Your task to perform on an android device: turn off notifications settings in the gmail app Image 0: 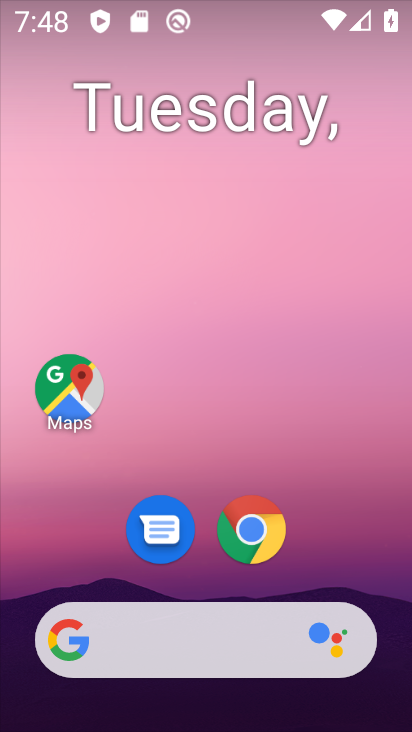
Step 0: drag from (213, 585) to (296, 10)
Your task to perform on an android device: turn off notifications settings in the gmail app Image 1: 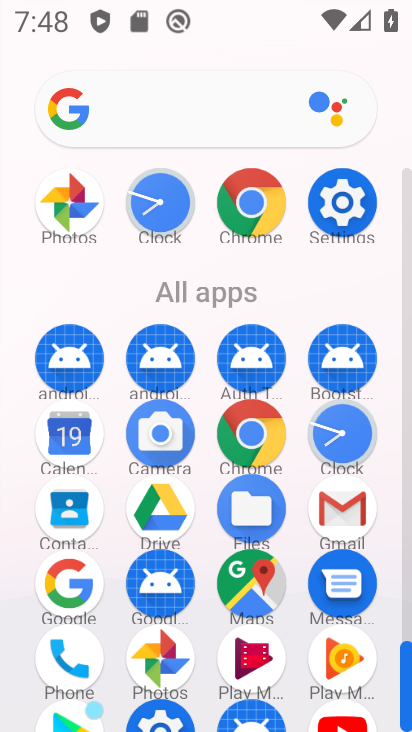
Step 1: click (344, 520)
Your task to perform on an android device: turn off notifications settings in the gmail app Image 2: 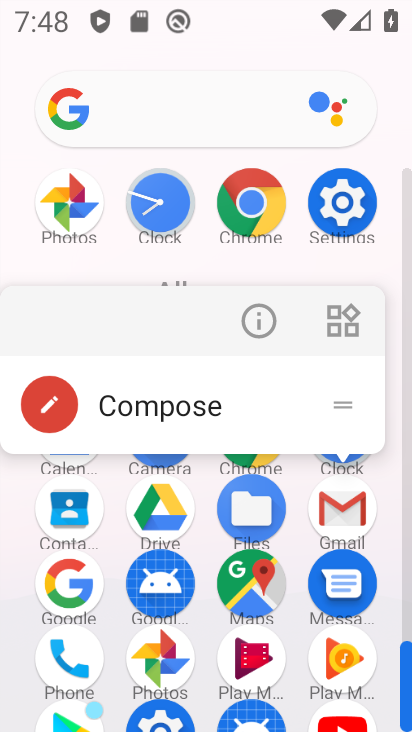
Step 2: click (344, 520)
Your task to perform on an android device: turn off notifications settings in the gmail app Image 3: 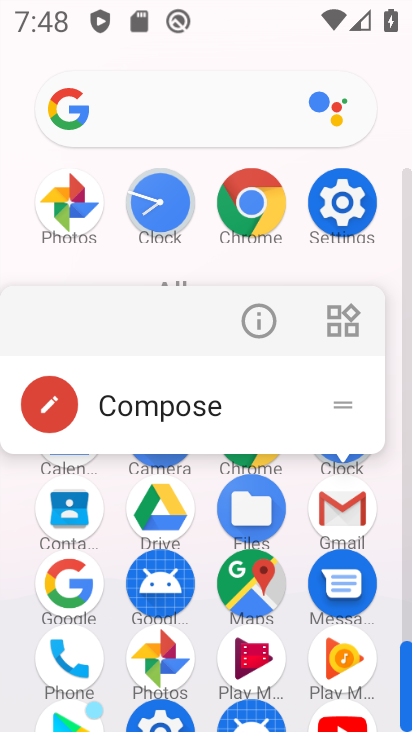
Step 3: click (344, 520)
Your task to perform on an android device: turn off notifications settings in the gmail app Image 4: 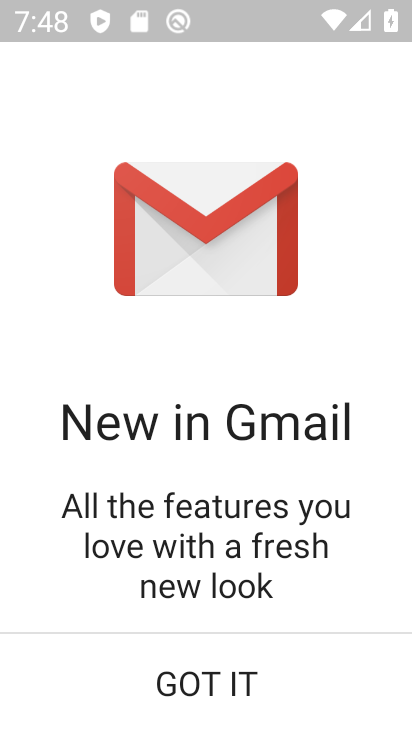
Step 4: click (249, 696)
Your task to perform on an android device: turn off notifications settings in the gmail app Image 5: 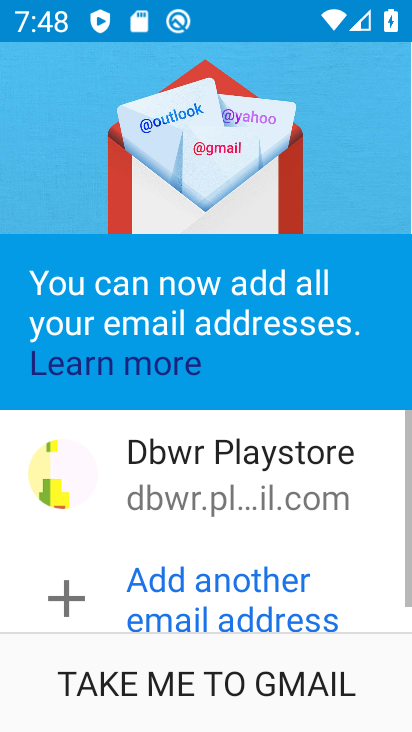
Step 5: click (262, 677)
Your task to perform on an android device: turn off notifications settings in the gmail app Image 6: 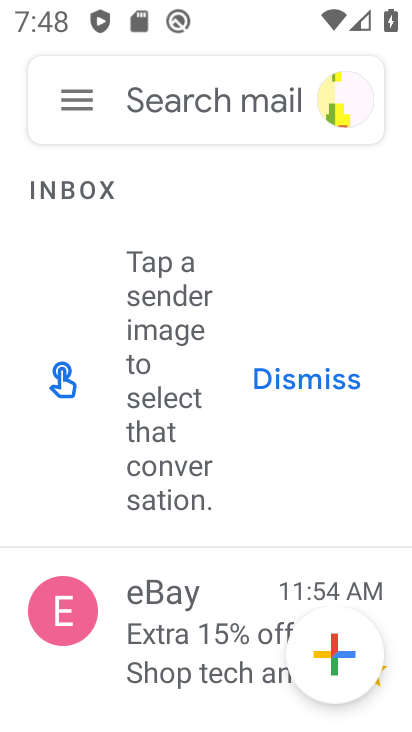
Step 6: click (63, 87)
Your task to perform on an android device: turn off notifications settings in the gmail app Image 7: 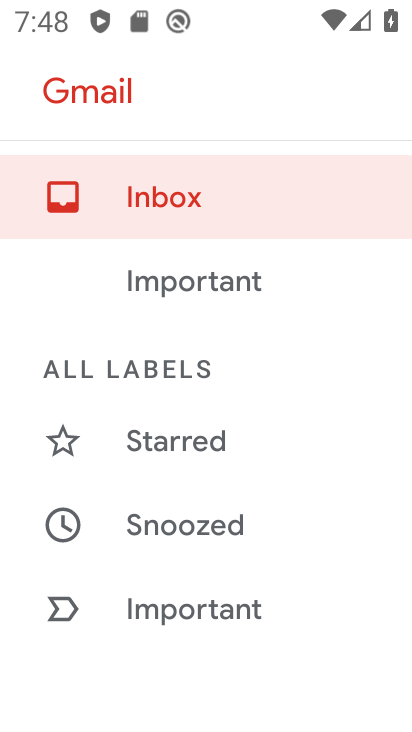
Step 7: drag from (158, 479) to (237, 14)
Your task to perform on an android device: turn off notifications settings in the gmail app Image 8: 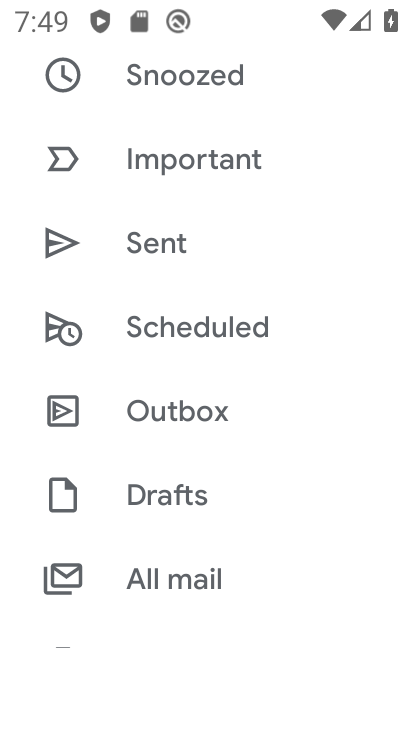
Step 8: drag from (170, 541) to (236, 2)
Your task to perform on an android device: turn off notifications settings in the gmail app Image 9: 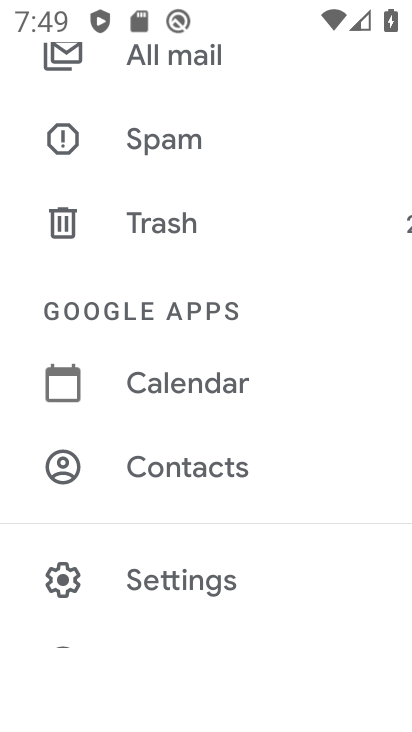
Step 9: click (152, 580)
Your task to perform on an android device: turn off notifications settings in the gmail app Image 10: 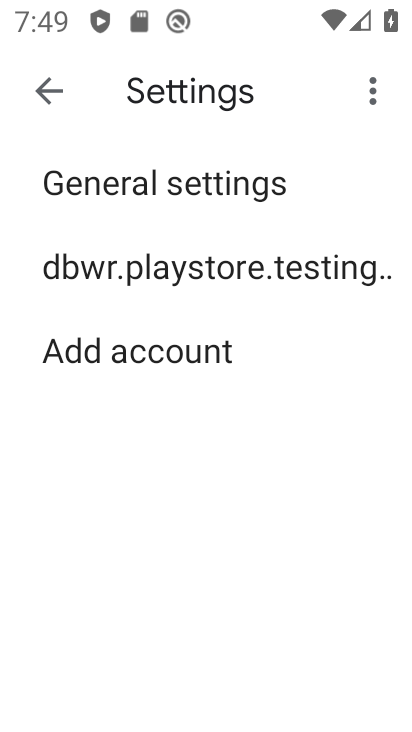
Step 10: click (181, 176)
Your task to perform on an android device: turn off notifications settings in the gmail app Image 11: 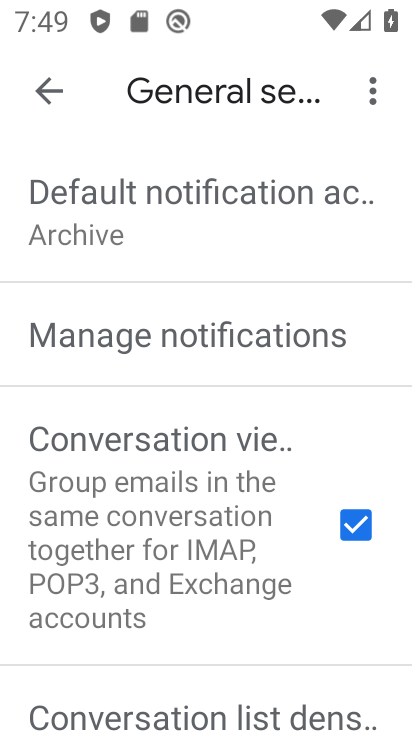
Step 11: click (135, 341)
Your task to perform on an android device: turn off notifications settings in the gmail app Image 12: 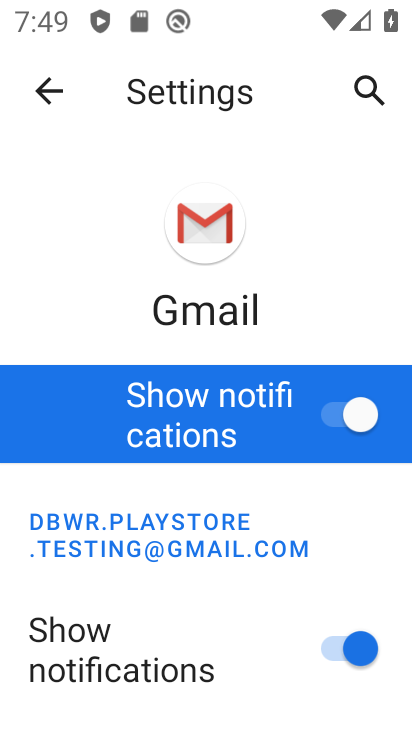
Step 12: click (338, 420)
Your task to perform on an android device: turn off notifications settings in the gmail app Image 13: 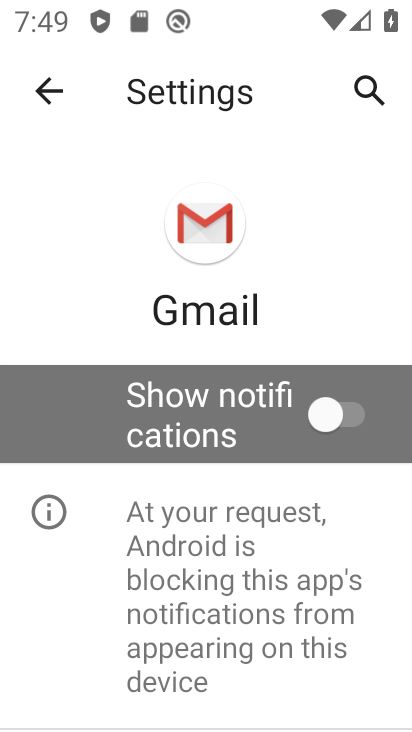
Step 13: task complete